Your task to perform on an android device: Open display settings Image 0: 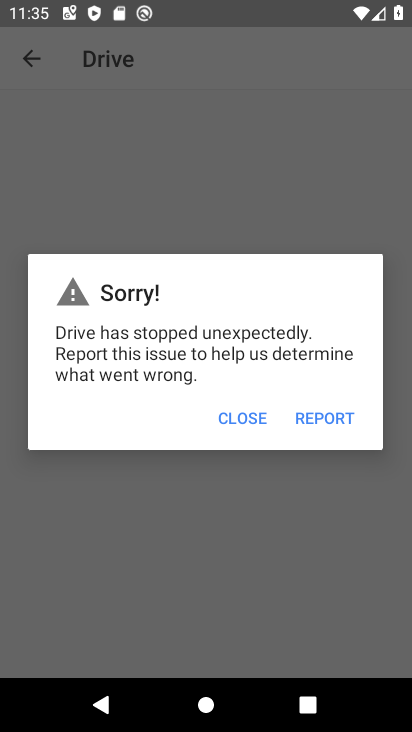
Step 0: press home button
Your task to perform on an android device: Open display settings Image 1: 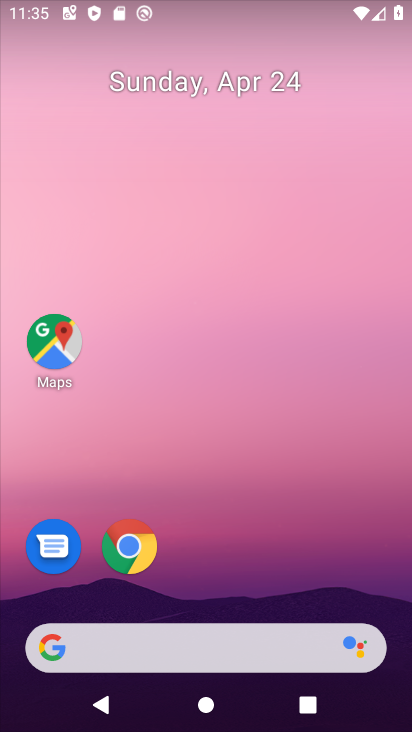
Step 1: drag from (211, 574) to (174, 165)
Your task to perform on an android device: Open display settings Image 2: 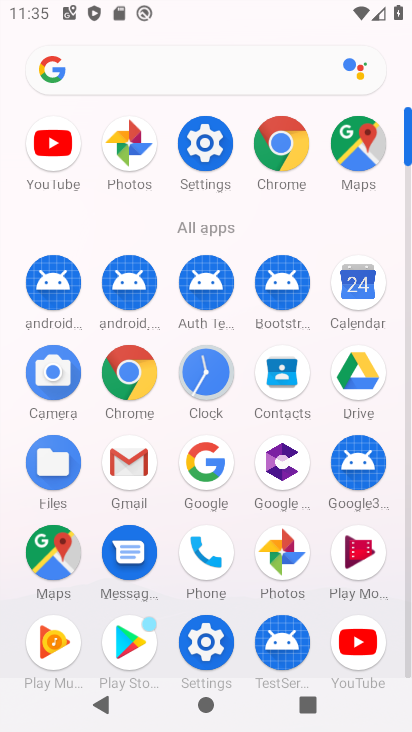
Step 2: click (191, 161)
Your task to perform on an android device: Open display settings Image 3: 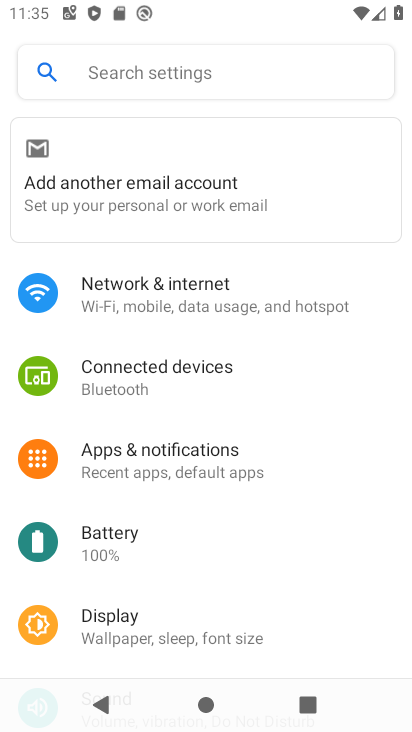
Step 3: click (148, 610)
Your task to perform on an android device: Open display settings Image 4: 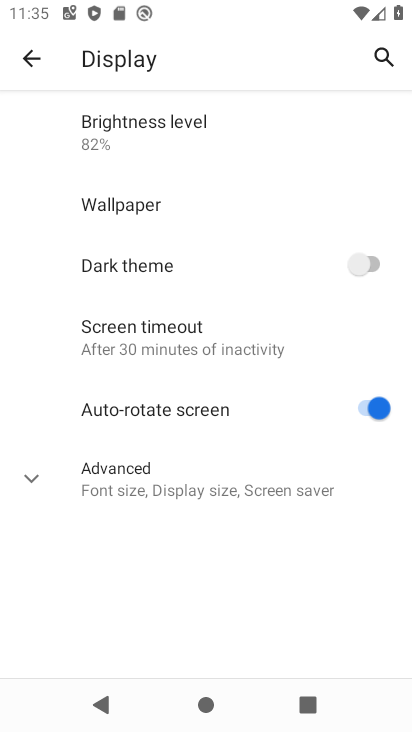
Step 4: task complete